Your task to perform on an android device: Search for flights from NYC to Buenos aires Image 0: 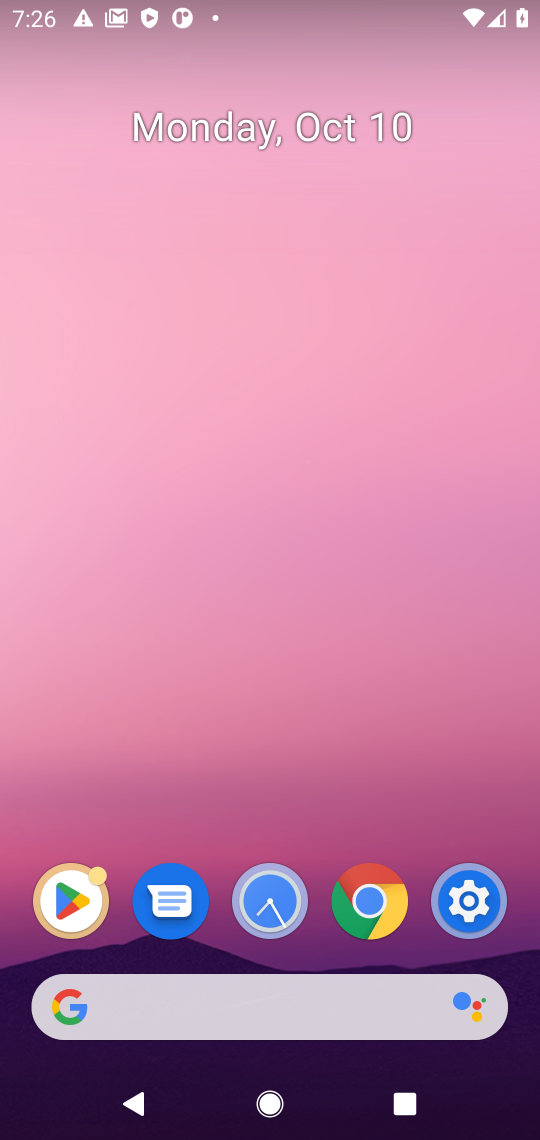
Step 0: click (217, 986)
Your task to perform on an android device: Search for flights from NYC to Buenos aires Image 1: 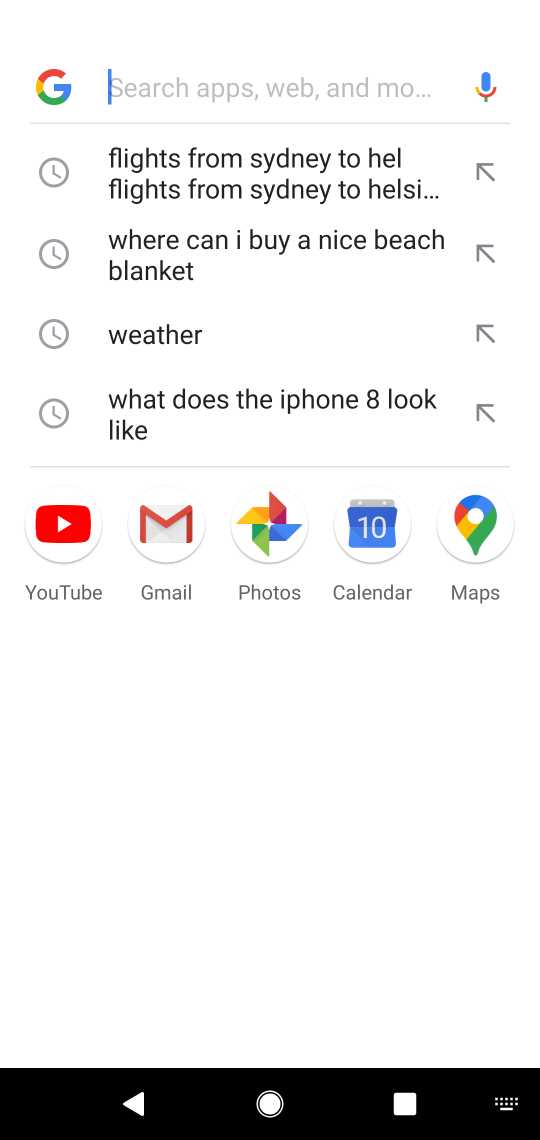
Step 1: type " flights from NYC to Buenos aires"
Your task to perform on an android device: Search for flights from NYC to Buenos aires Image 2: 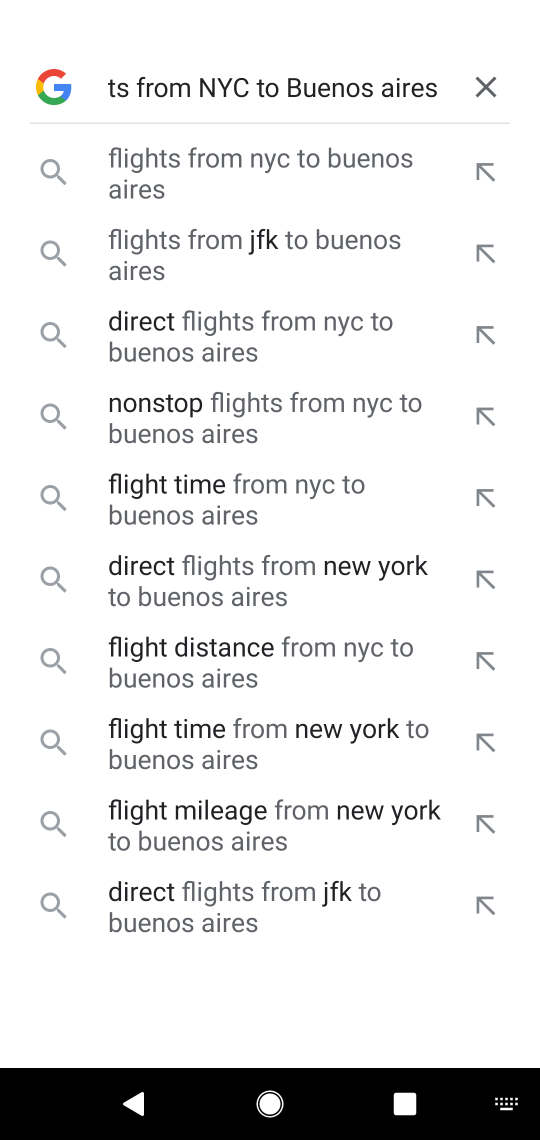
Step 2: click (256, 173)
Your task to perform on an android device: Search for flights from NYC to Buenos aires Image 3: 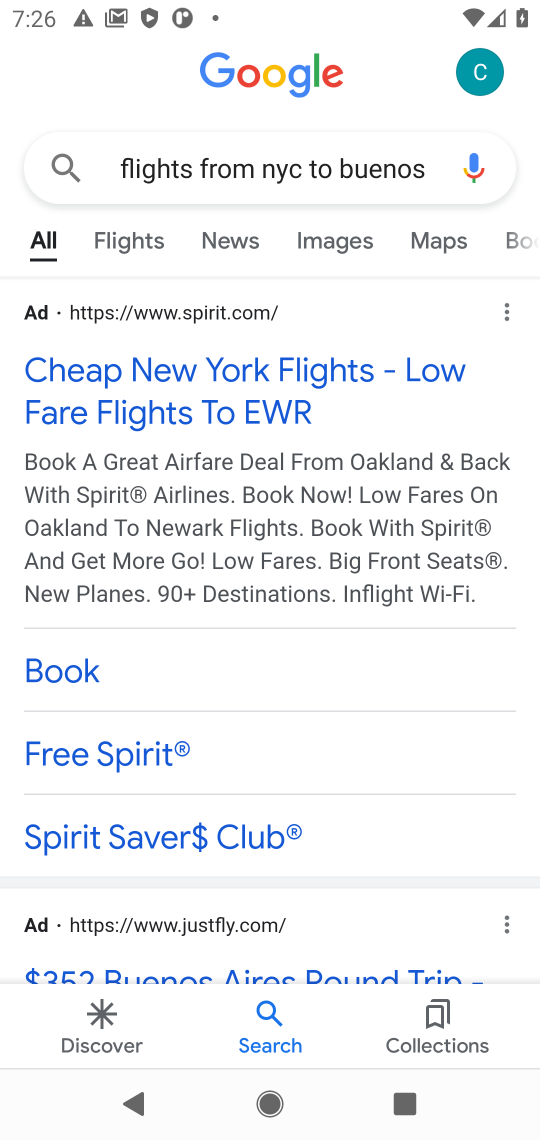
Step 3: drag from (405, 710) to (421, 559)
Your task to perform on an android device: Search for flights from NYC to Buenos aires Image 4: 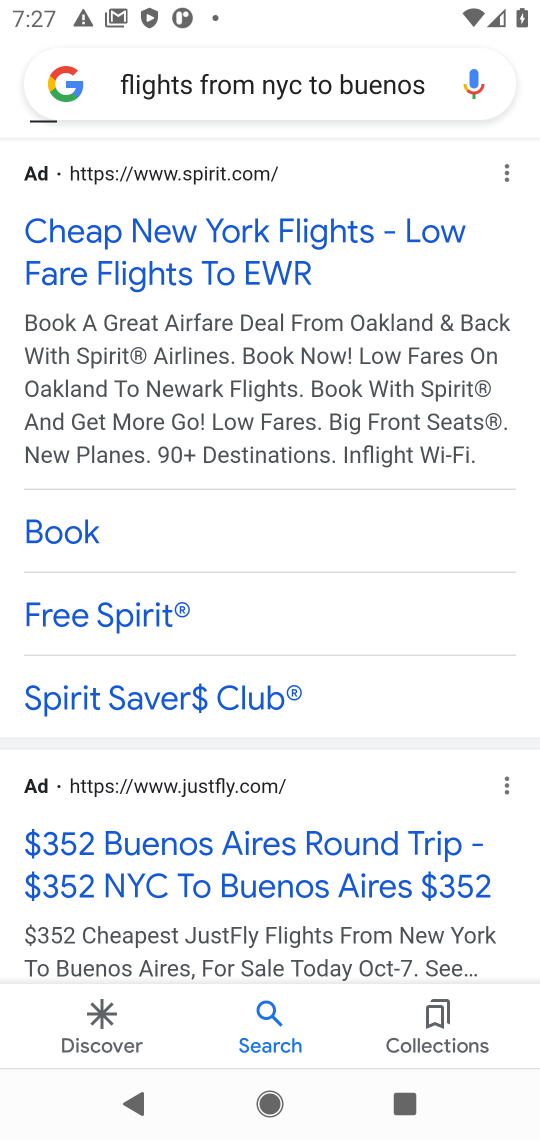
Step 4: drag from (398, 814) to (394, 363)
Your task to perform on an android device: Search for flights from NYC to Buenos aires Image 5: 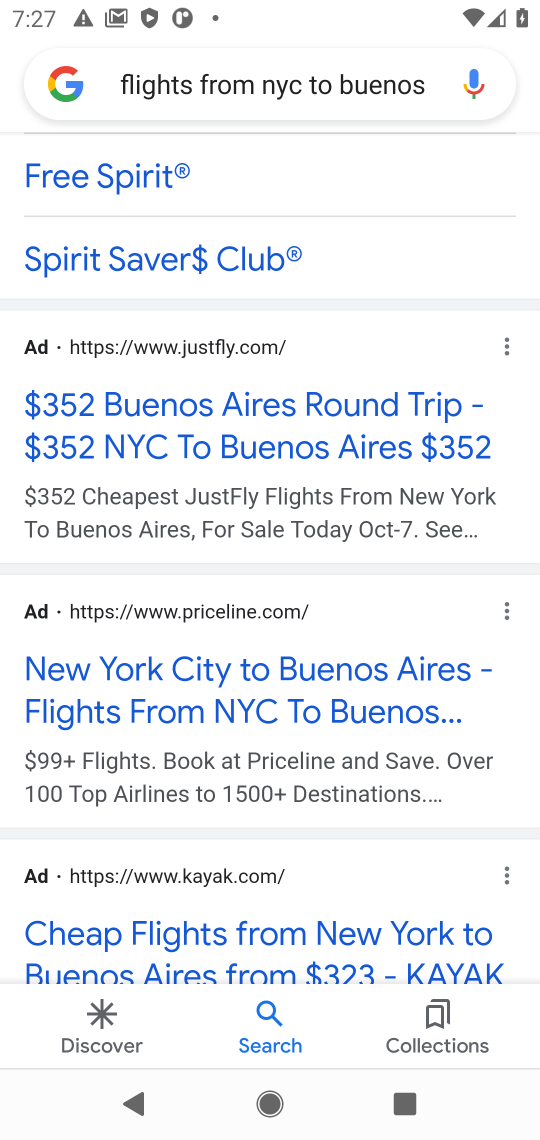
Step 5: drag from (368, 831) to (363, 401)
Your task to perform on an android device: Search for flights from NYC to Buenos aires Image 6: 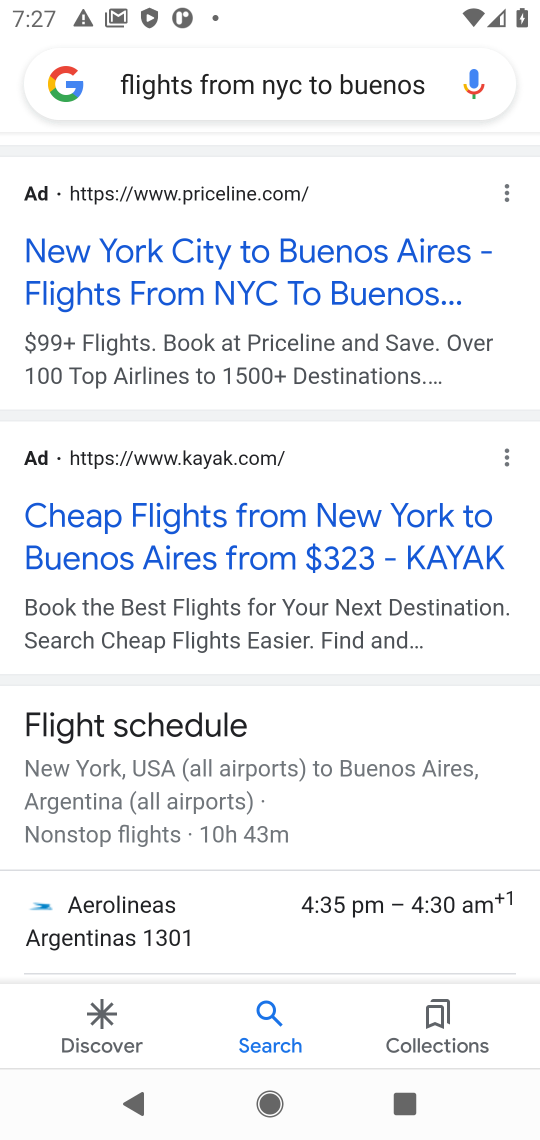
Step 6: drag from (267, 924) to (299, 457)
Your task to perform on an android device: Search for flights from NYC to Buenos aires Image 7: 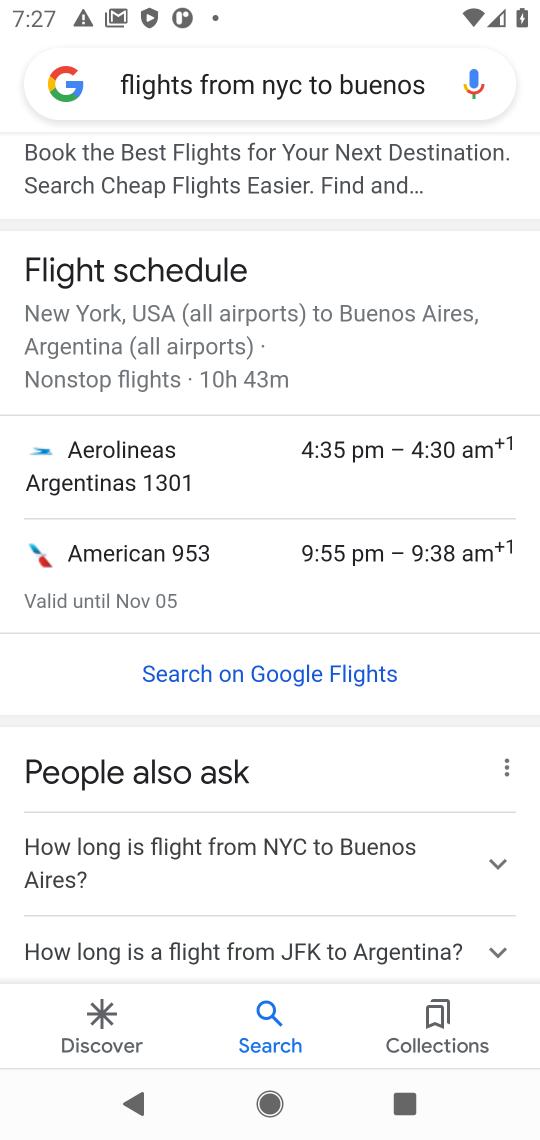
Step 7: click (271, 671)
Your task to perform on an android device: Search for flights from NYC to Buenos aires Image 8: 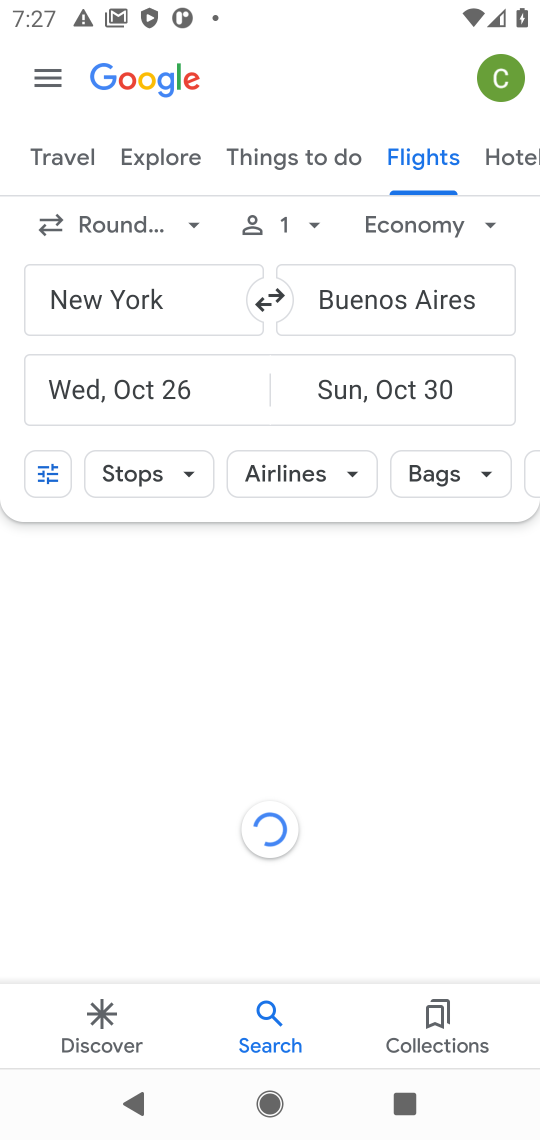
Step 8: task complete